Your task to perform on an android device: Open privacy settings Image 0: 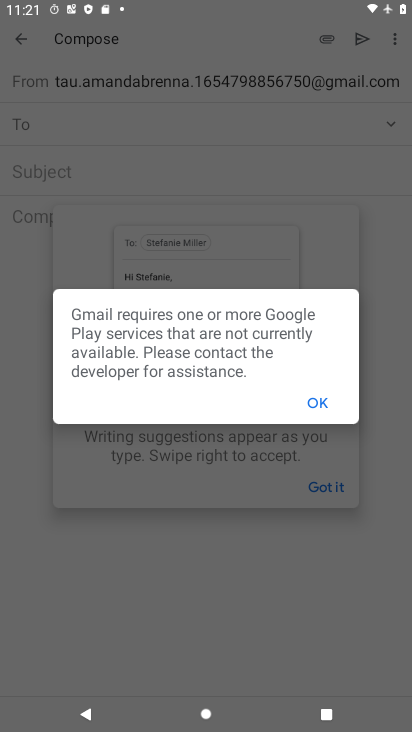
Step 0: press home button
Your task to perform on an android device: Open privacy settings Image 1: 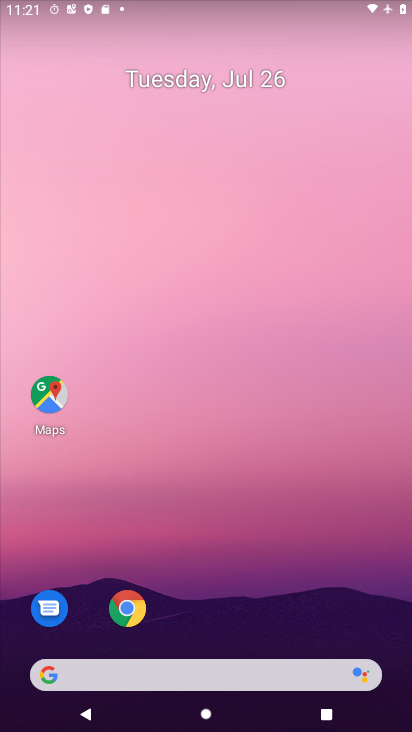
Step 1: click (192, 79)
Your task to perform on an android device: Open privacy settings Image 2: 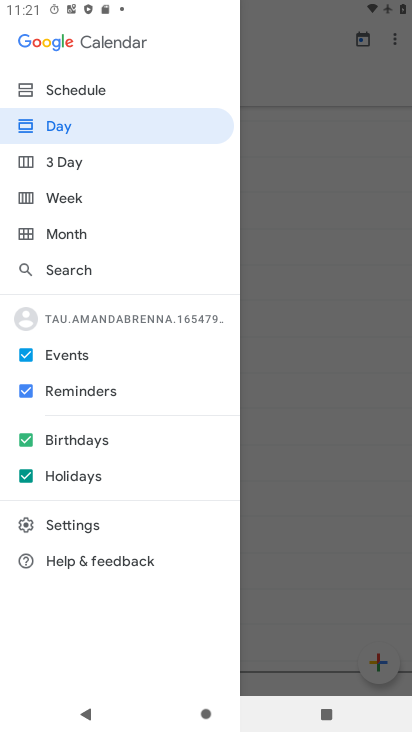
Step 2: press home button
Your task to perform on an android device: Open privacy settings Image 3: 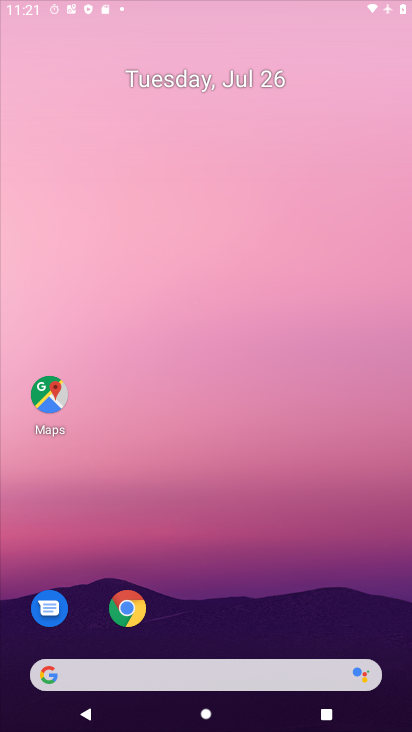
Step 3: drag from (244, 615) to (246, 61)
Your task to perform on an android device: Open privacy settings Image 4: 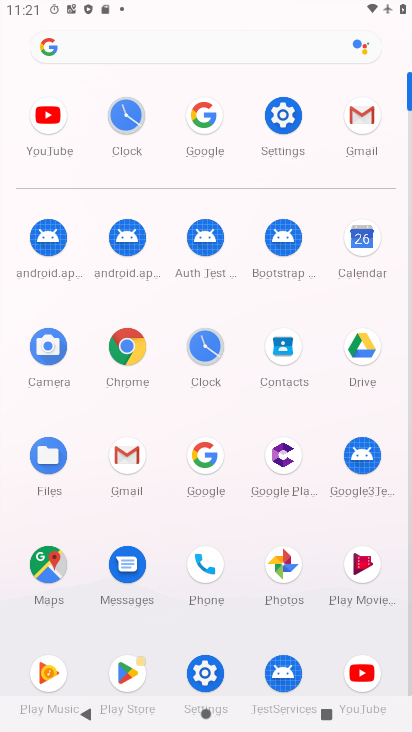
Step 4: click (288, 97)
Your task to perform on an android device: Open privacy settings Image 5: 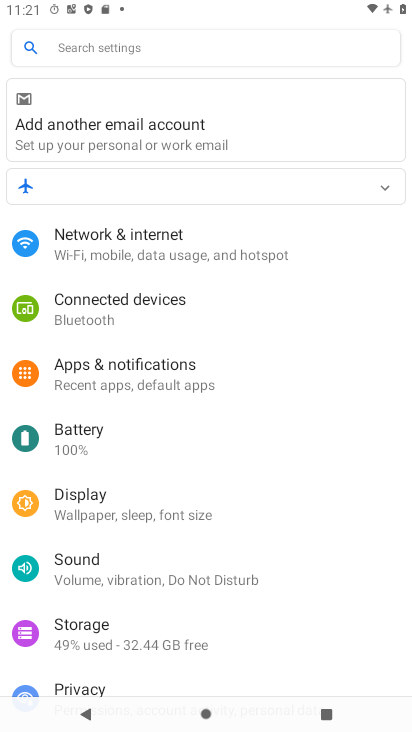
Step 5: drag from (161, 600) to (190, 376)
Your task to perform on an android device: Open privacy settings Image 6: 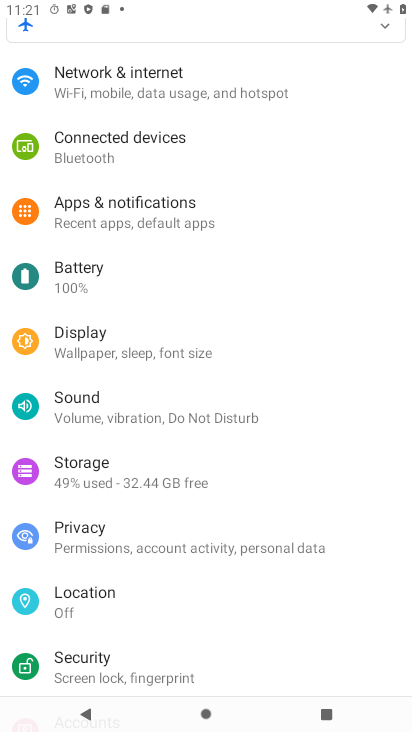
Step 6: click (94, 541)
Your task to perform on an android device: Open privacy settings Image 7: 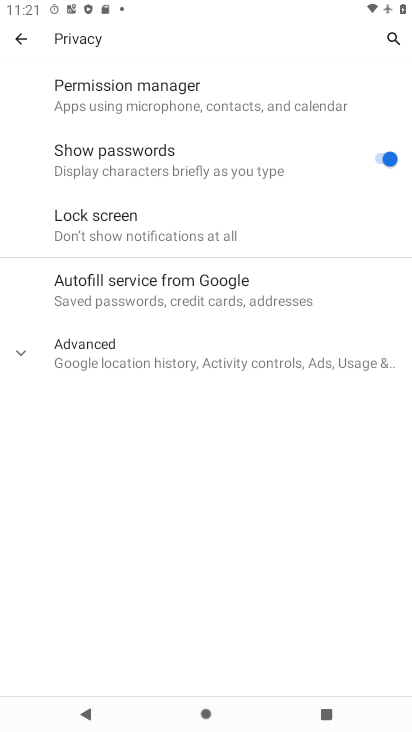
Step 7: task complete